Your task to perform on an android device: delete location history Image 0: 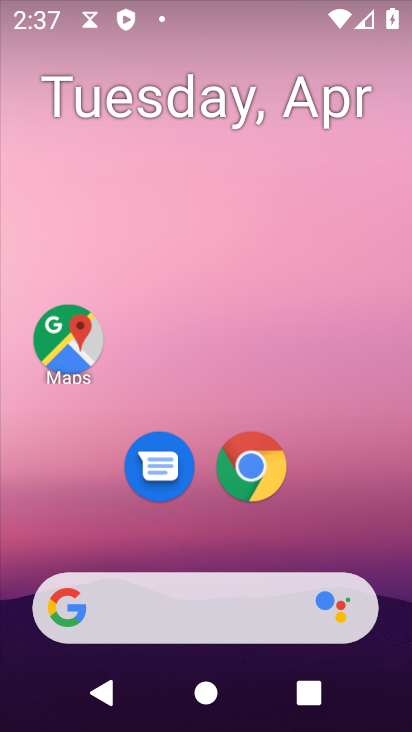
Step 0: drag from (337, 507) to (222, 8)
Your task to perform on an android device: delete location history Image 1: 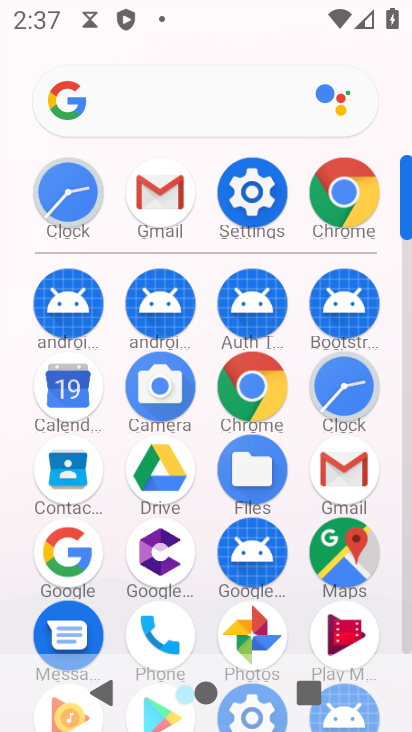
Step 1: click (251, 189)
Your task to perform on an android device: delete location history Image 2: 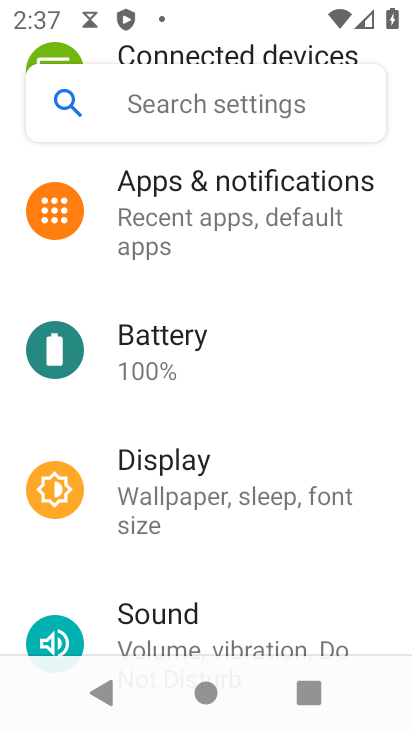
Step 2: drag from (241, 211) to (243, 512)
Your task to perform on an android device: delete location history Image 3: 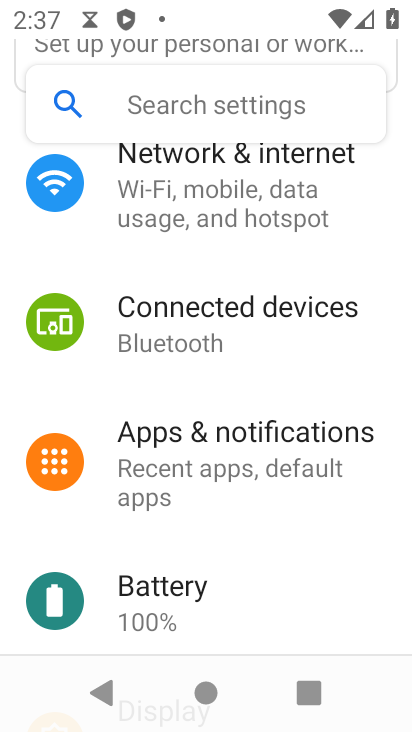
Step 3: drag from (221, 190) to (252, 488)
Your task to perform on an android device: delete location history Image 4: 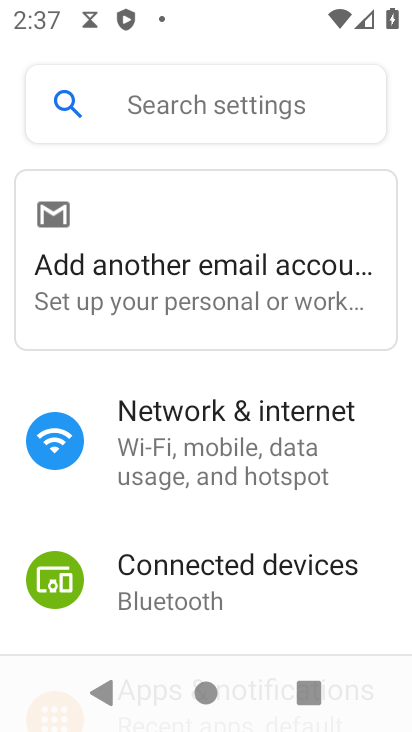
Step 4: drag from (236, 281) to (236, 574)
Your task to perform on an android device: delete location history Image 5: 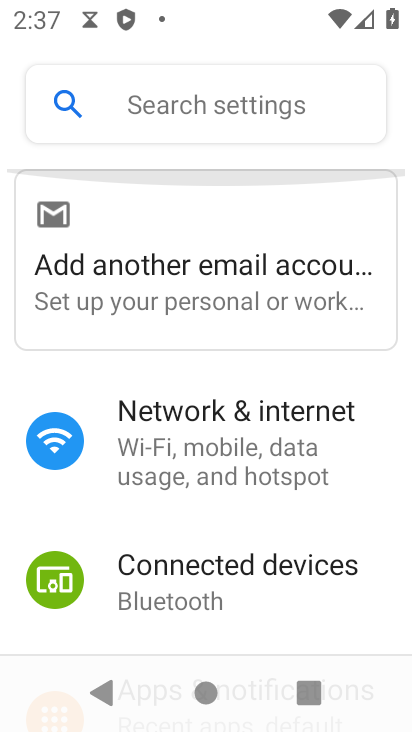
Step 5: drag from (248, 592) to (241, 243)
Your task to perform on an android device: delete location history Image 6: 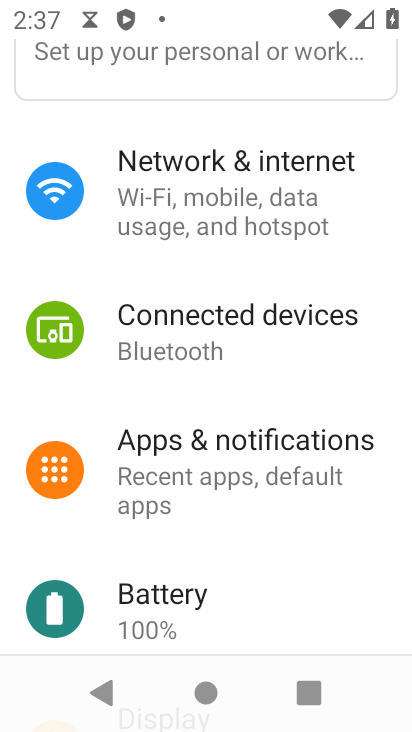
Step 6: drag from (229, 501) to (237, 162)
Your task to perform on an android device: delete location history Image 7: 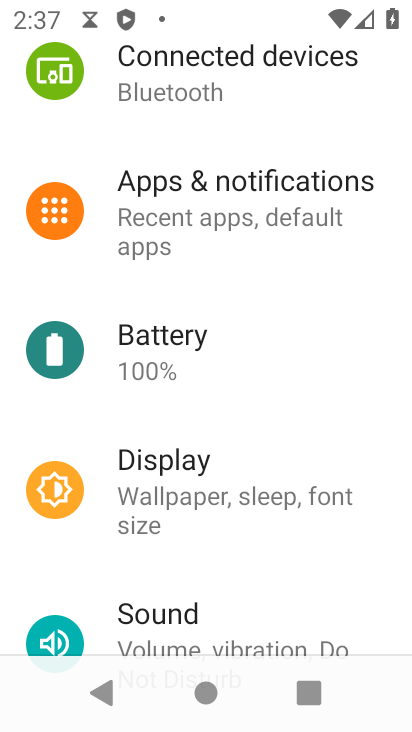
Step 7: drag from (225, 513) to (215, 131)
Your task to perform on an android device: delete location history Image 8: 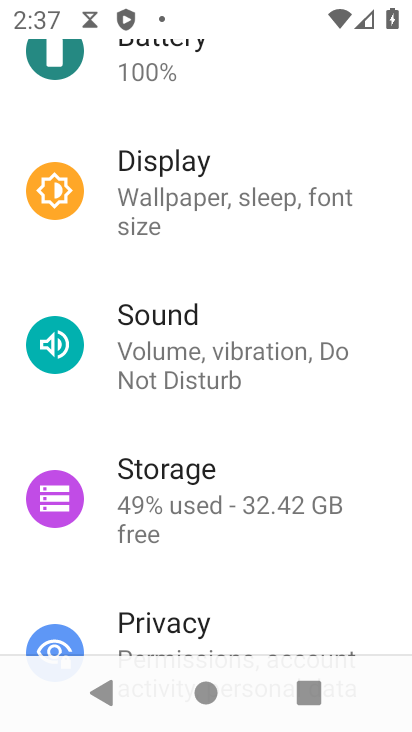
Step 8: drag from (182, 543) to (203, 155)
Your task to perform on an android device: delete location history Image 9: 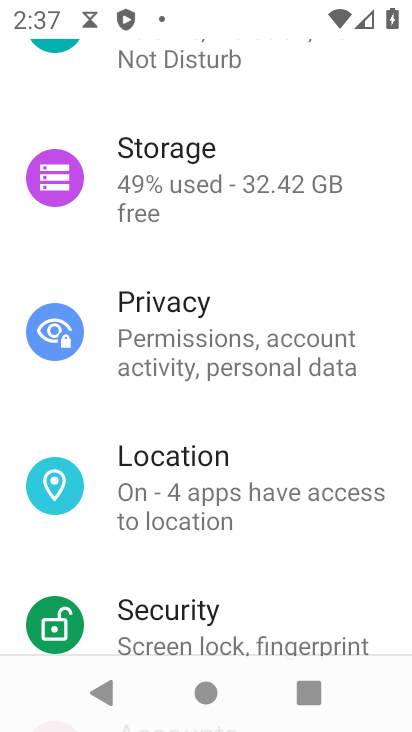
Step 9: drag from (262, 549) to (251, 98)
Your task to perform on an android device: delete location history Image 10: 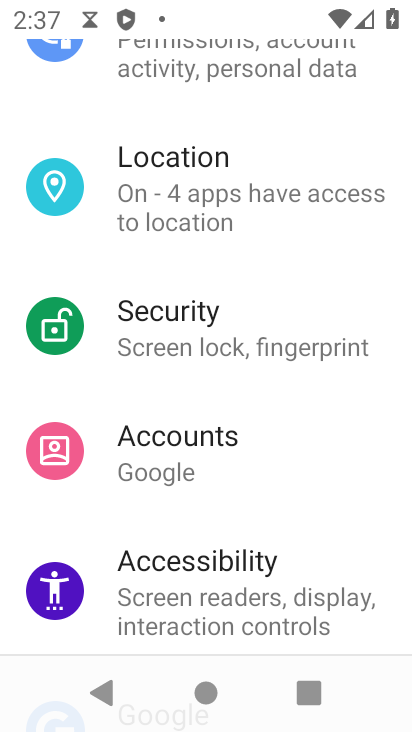
Step 10: drag from (270, 519) to (241, 113)
Your task to perform on an android device: delete location history Image 11: 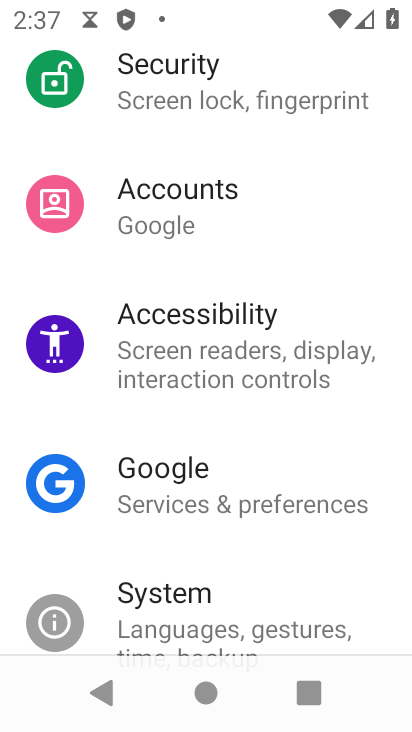
Step 11: drag from (269, 508) to (258, 82)
Your task to perform on an android device: delete location history Image 12: 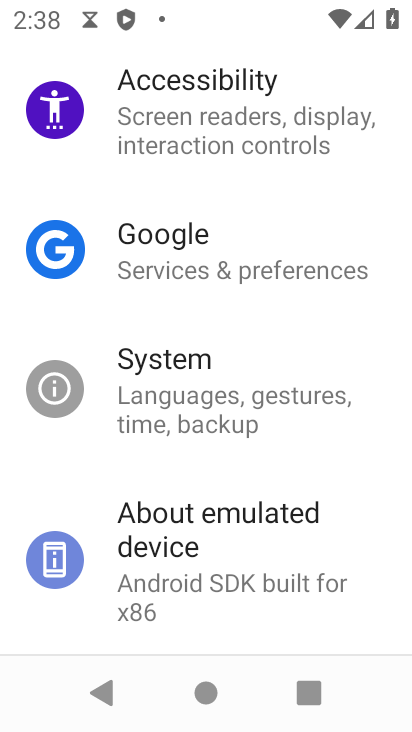
Step 12: drag from (303, 541) to (225, 130)
Your task to perform on an android device: delete location history Image 13: 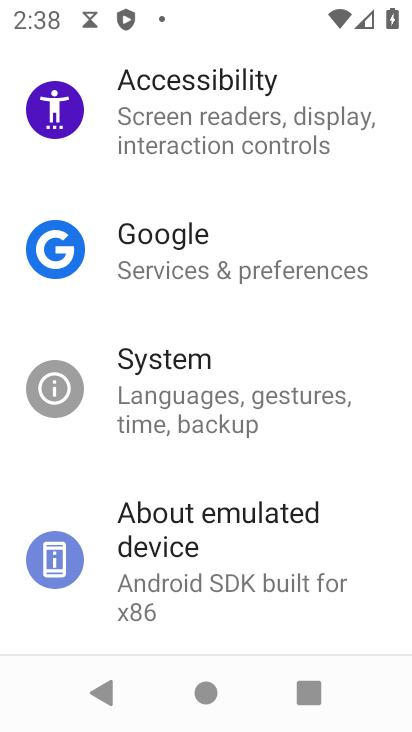
Step 13: drag from (243, 261) to (250, 573)
Your task to perform on an android device: delete location history Image 14: 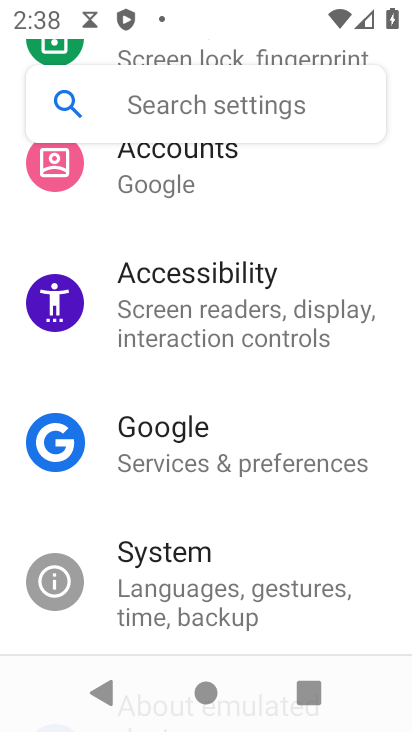
Step 14: drag from (229, 194) to (238, 469)
Your task to perform on an android device: delete location history Image 15: 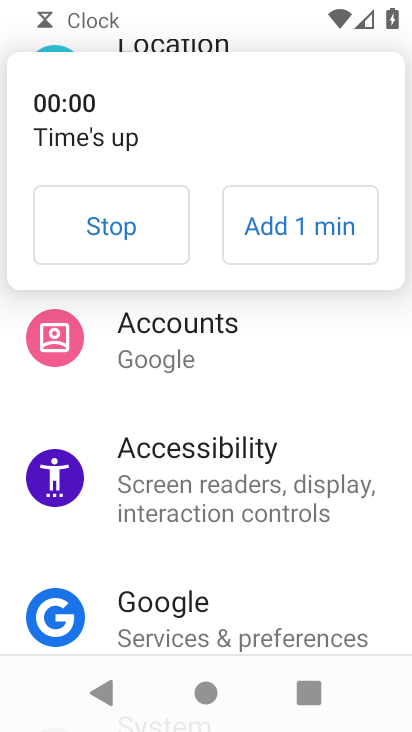
Step 15: drag from (232, 225) to (225, 504)
Your task to perform on an android device: delete location history Image 16: 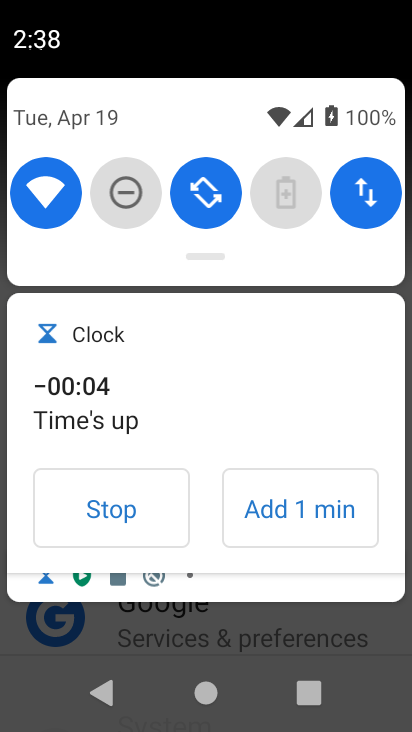
Step 16: click (128, 496)
Your task to perform on an android device: delete location history Image 17: 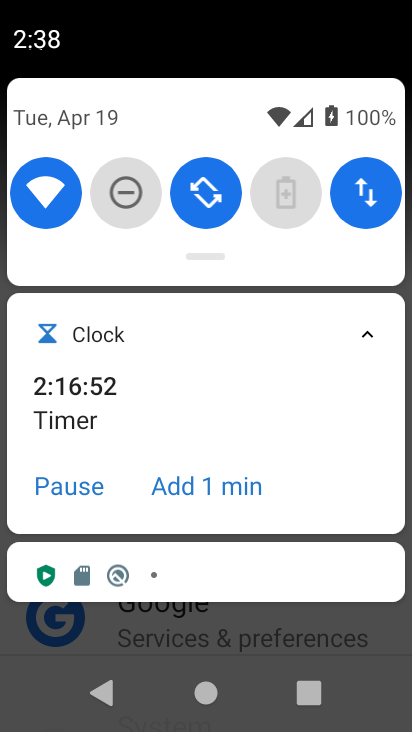
Step 17: drag from (287, 628) to (240, 74)
Your task to perform on an android device: delete location history Image 18: 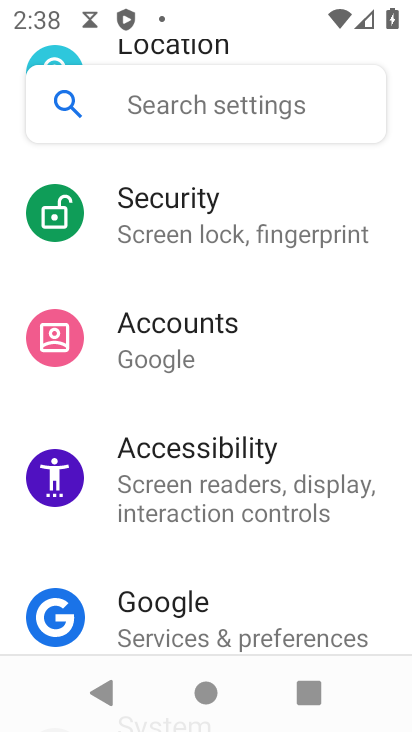
Step 18: drag from (257, 346) to (258, 587)
Your task to perform on an android device: delete location history Image 19: 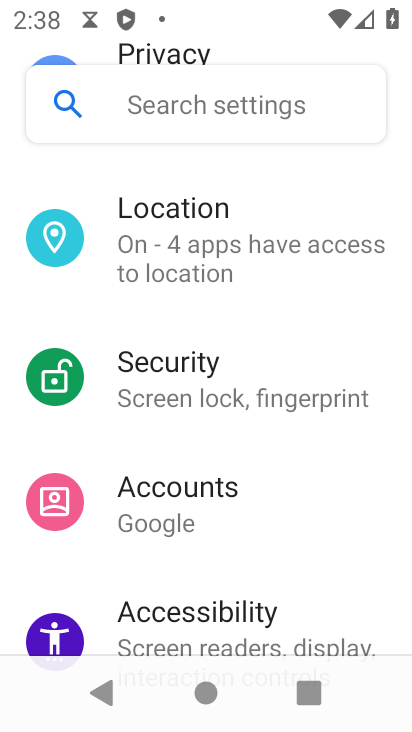
Step 19: click (183, 283)
Your task to perform on an android device: delete location history Image 20: 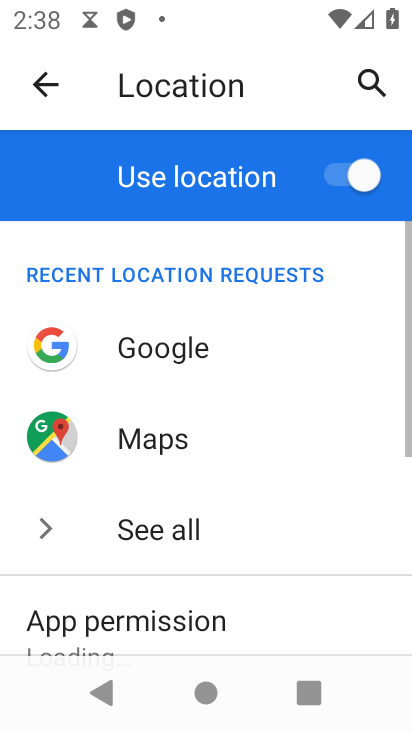
Step 20: drag from (243, 559) to (241, 244)
Your task to perform on an android device: delete location history Image 21: 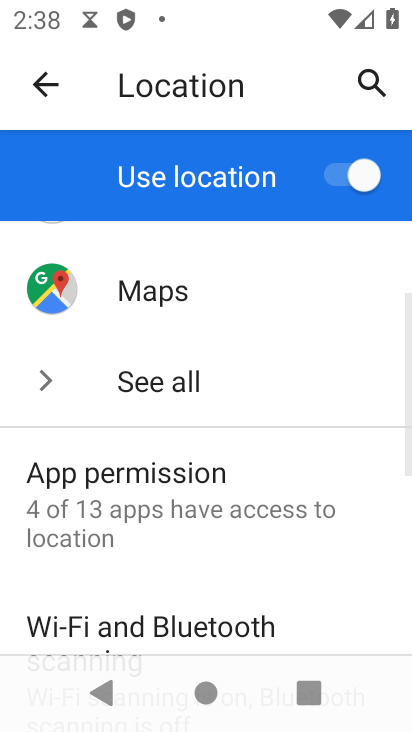
Step 21: drag from (241, 563) to (272, 245)
Your task to perform on an android device: delete location history Image 22: 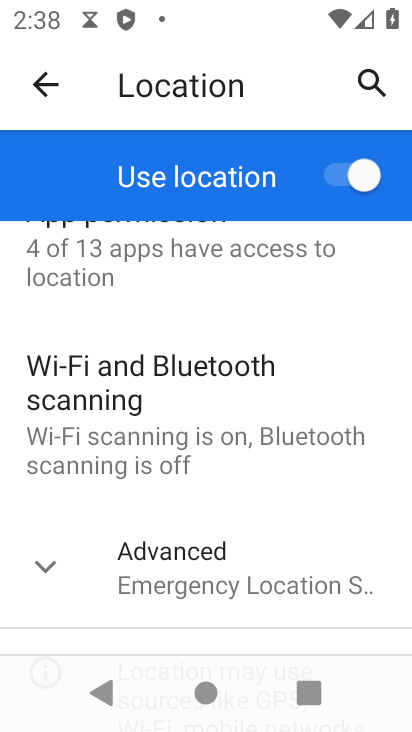
Step 22: click (176, 567)
Your task to perform on an android device: delete location history Image 23: 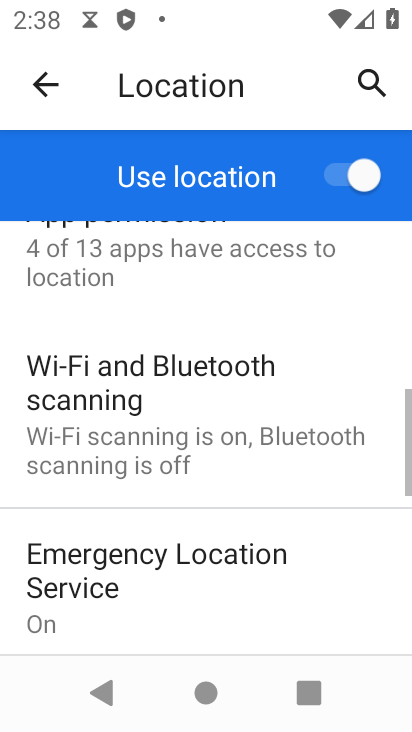
Step 23: drag from (224, 552) to (224, 299)
Your task to perform on an android device: delete location history Image 24: 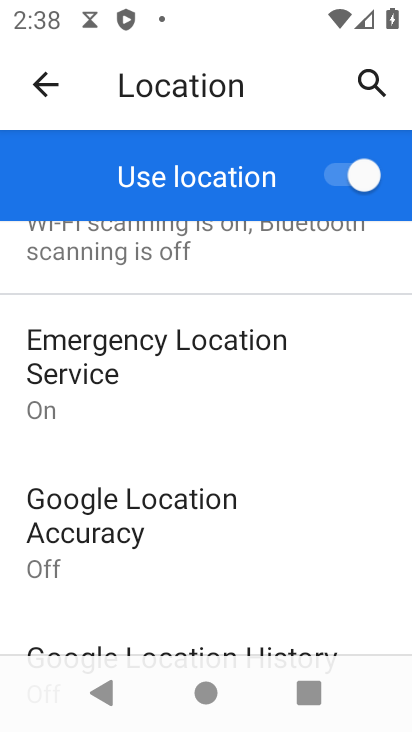
Step 24: drag from (287, 528) to (246, 222)
Your task to perform on an android device: delete location history Image 25: 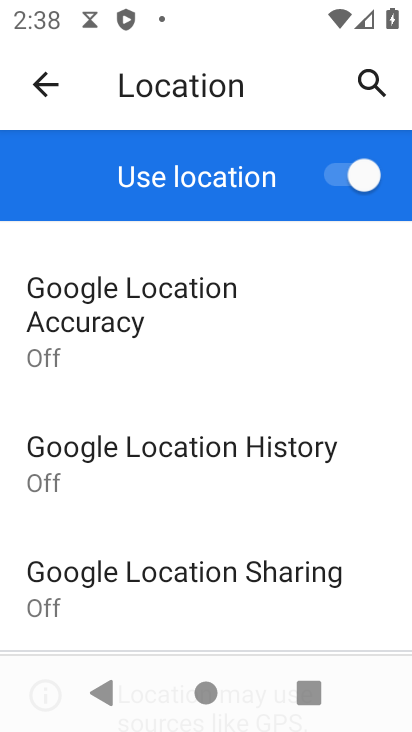
Step 25: click (203, 449)
Your task to perform on an android device: delete location history Image 26: 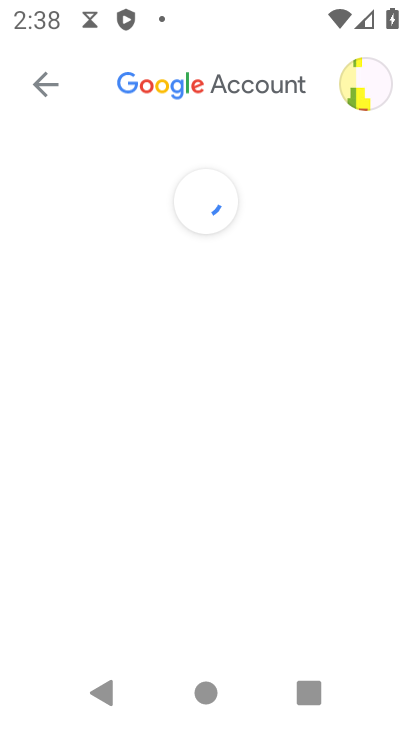
Step 26: drag from (251, 481) to (221, 172)
Your task to perform on an android device: delete location history Image 27: 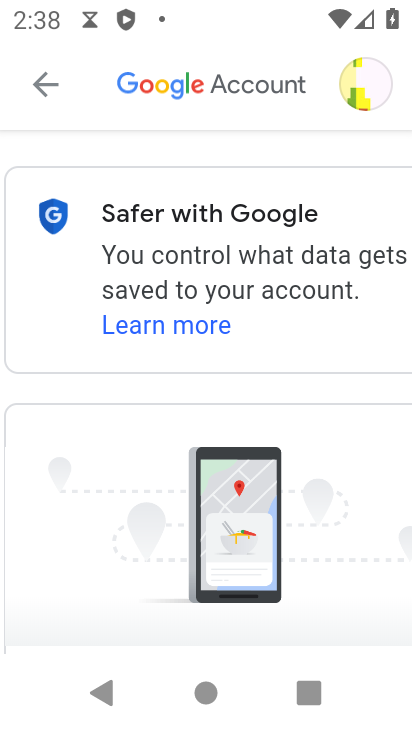
Step 27: drag from (238, 504) to (237, 141)
Your task to perform on an android device: delete location history Image 28: 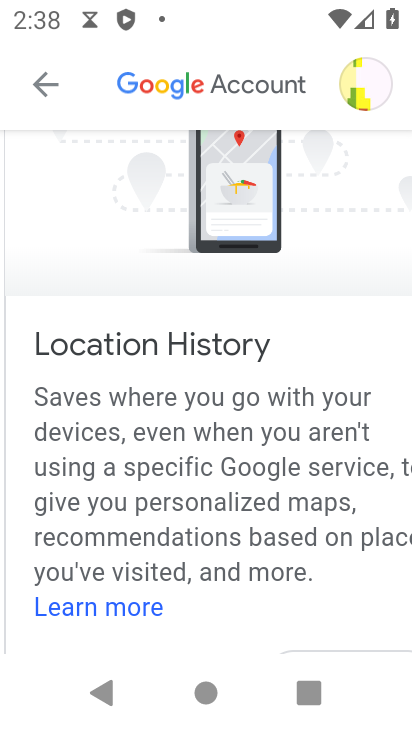
Step 28: drag from (180, 471) to (143, 179)
Your task to perform on an android device: delete location history Image 29: 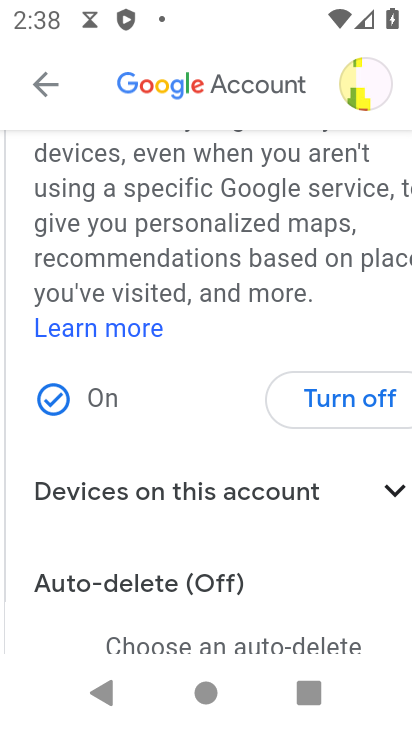
Step 29: drag from (175, 554) to (140, 205)
Your task to perform on an android device: delete location history Image 30: 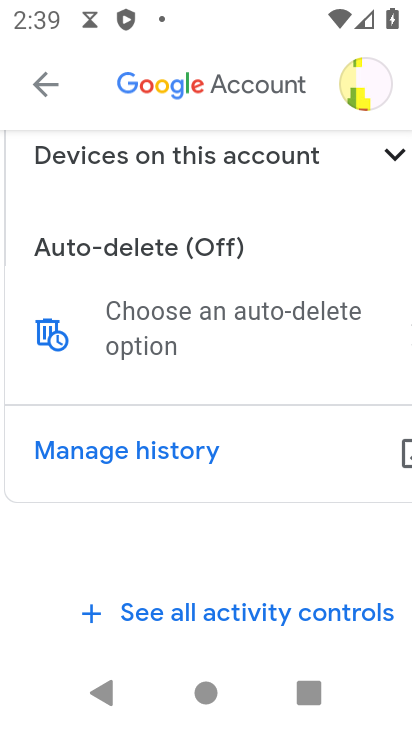
Step 30: click (45, 327)
Your task to perform on an android device: delete location history Image 31: 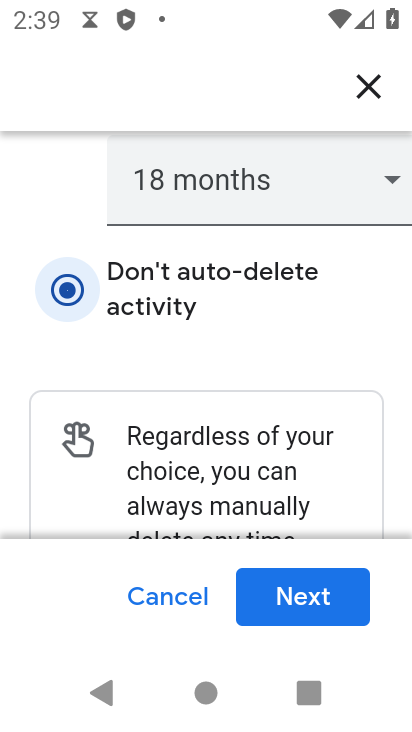
Step 31: click (341, 598)
Your task to perform on an android device: delete location history Image 32: 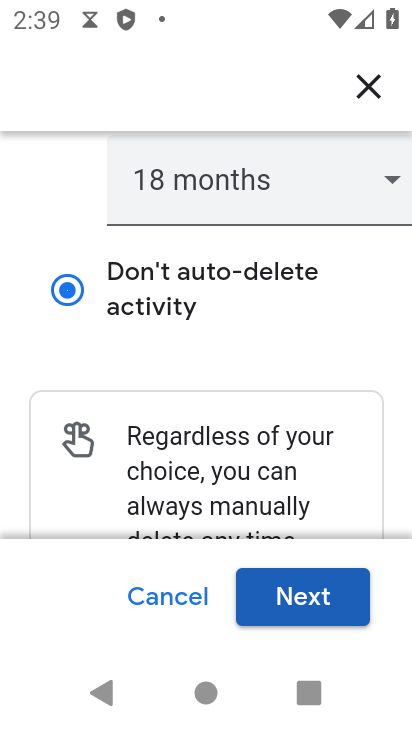
Step 32: click (313, 591)
Your task to perform on an android device: delete location history Image 33: 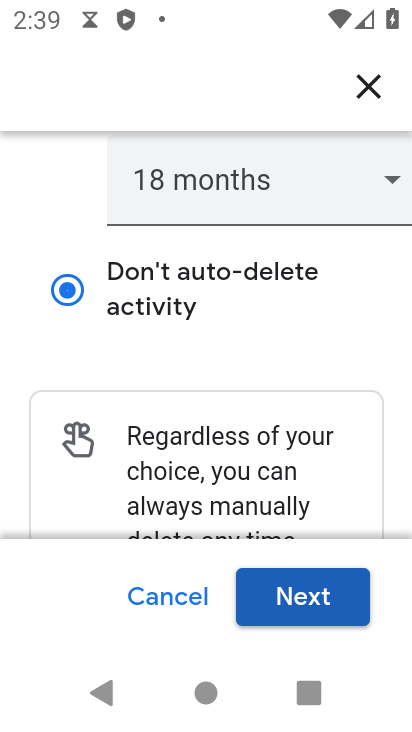
Step 33: click (313, 591)
Your task to perform on an android device: delete location history Image 34: 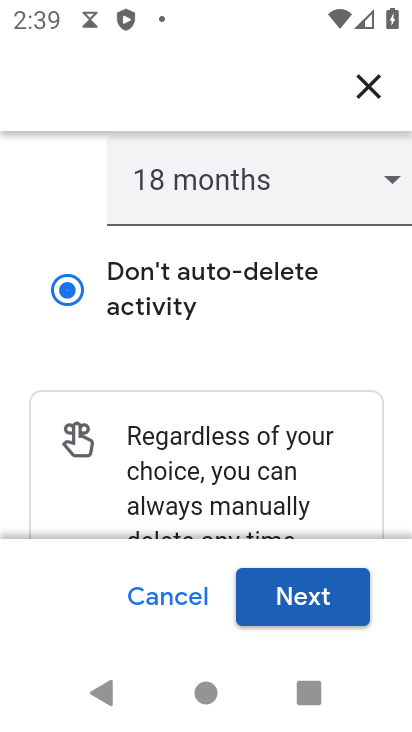
Step 34: click (303, 597)
Your task to perform on an android device: delete location history Image 35: 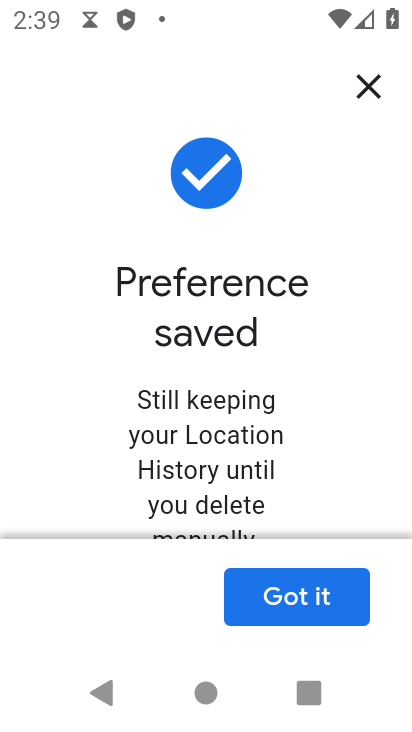
Step 35: click (300, 599)
Your task to perform on an android device: delete location history Image 36: 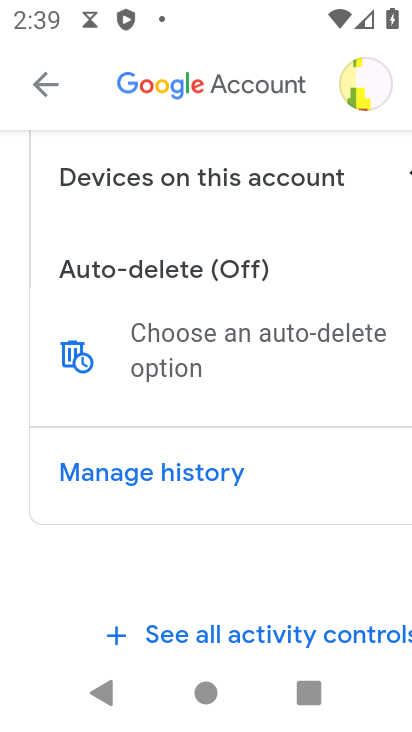
Step 36: task complete